Your task to perform on an android device: open wifi settings Image 0: 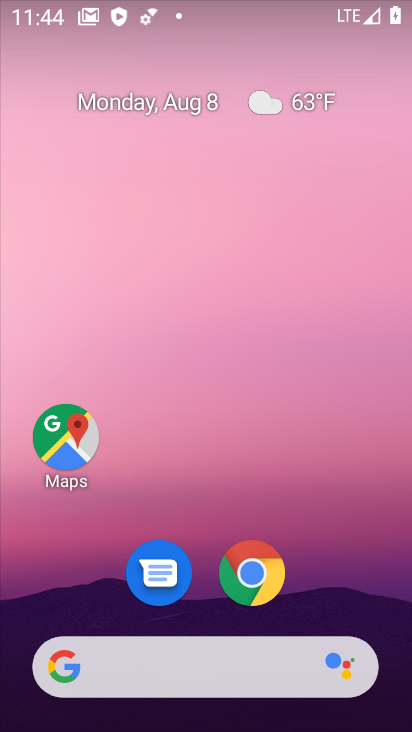
Step 0: drag from (228, 639) to (167, 178)
Your task to perform on an android device: open wifi settings Image 1: 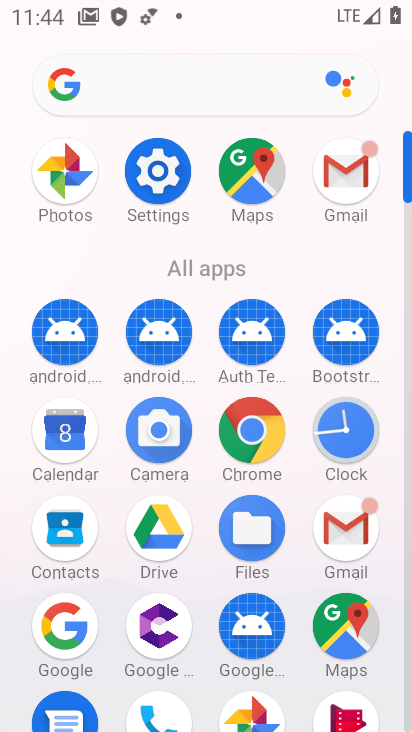
Step 1: click (164, 175)
Your task to perform on an android device: open wifi settings Image 2: 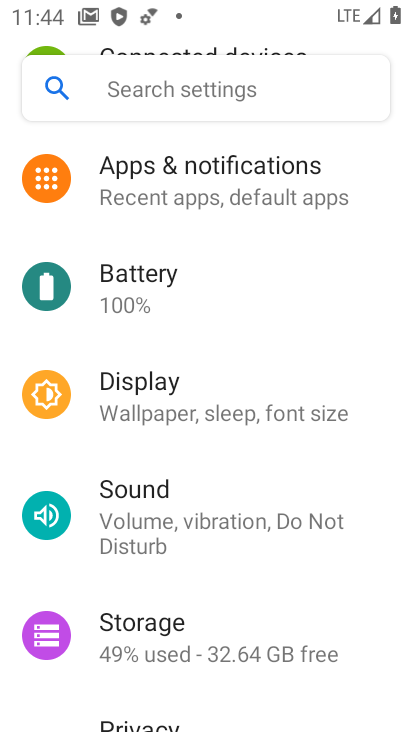
Step 2: drag from (165, 159) to (250, 501)
Your task to perform on an android device: open wifi settings Image 3: 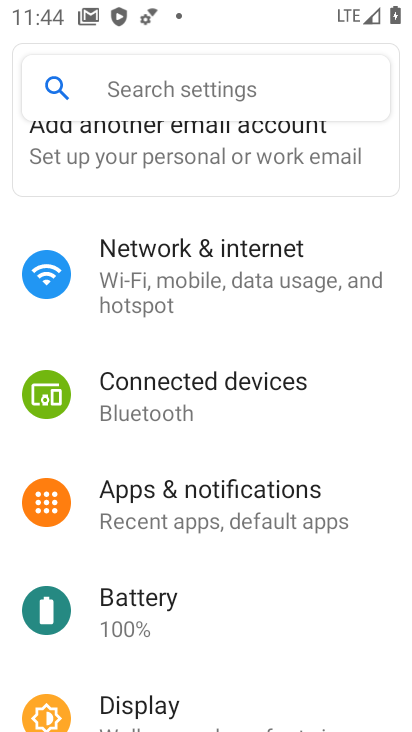
Step 3: click (162, 249)
Your task to perform on an android device: open wifi settings Image 4: 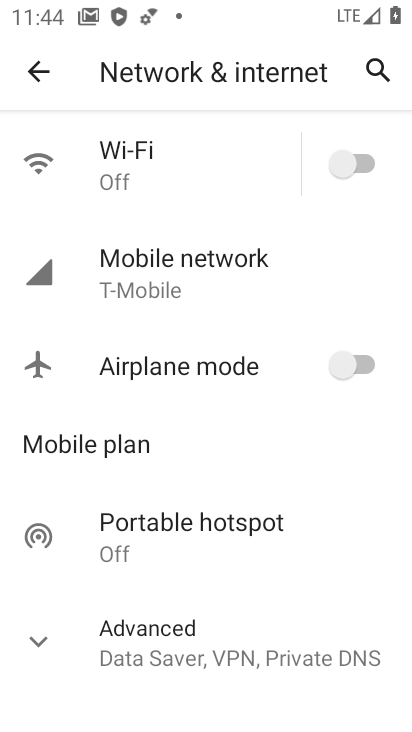
Step 4: click (141, 151)
Your task to perform on an android device: open wifi settings Image 5: 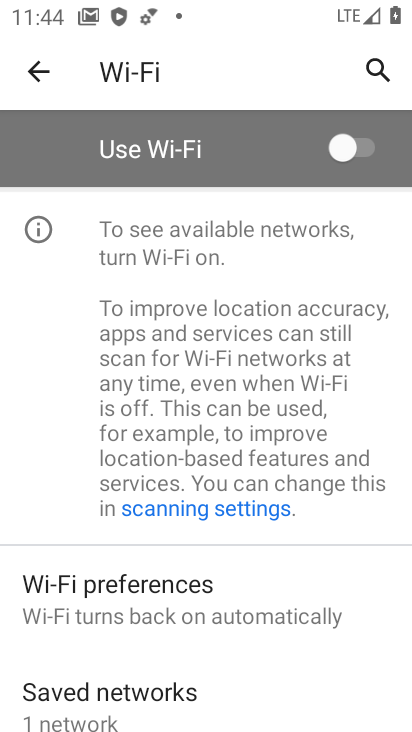
Step 5: click (353, 150)
Your task to perform on an android device: open wifi settings Image 6: 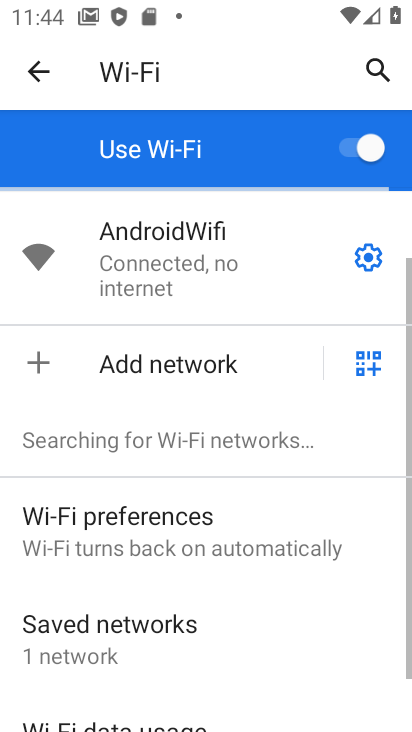
Step 6: click (370, 264)
Your task to perform on an android device: open wifi settings Image 7: 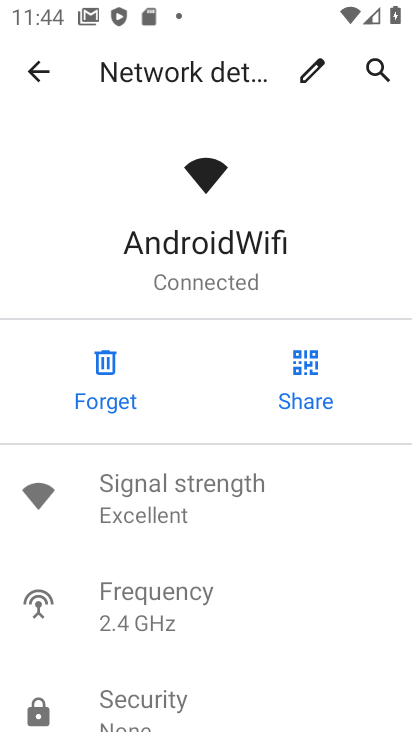
Step 7: task complete